Your task to perform on an android device: Is it going to rain today? Image 0: 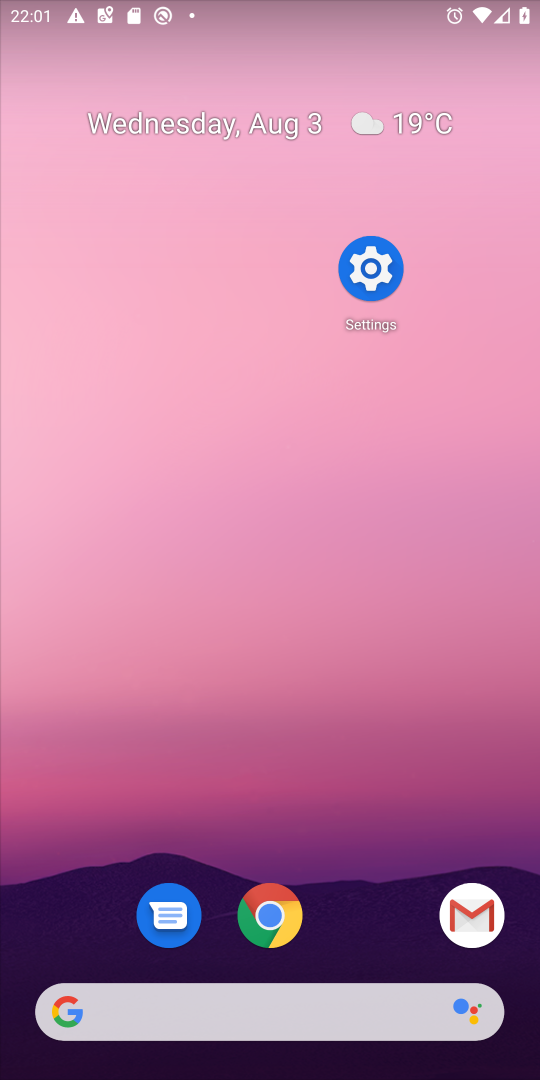
Step 0: press home button
Your task to perform on an android device: Is it going to rain today? Image 1: 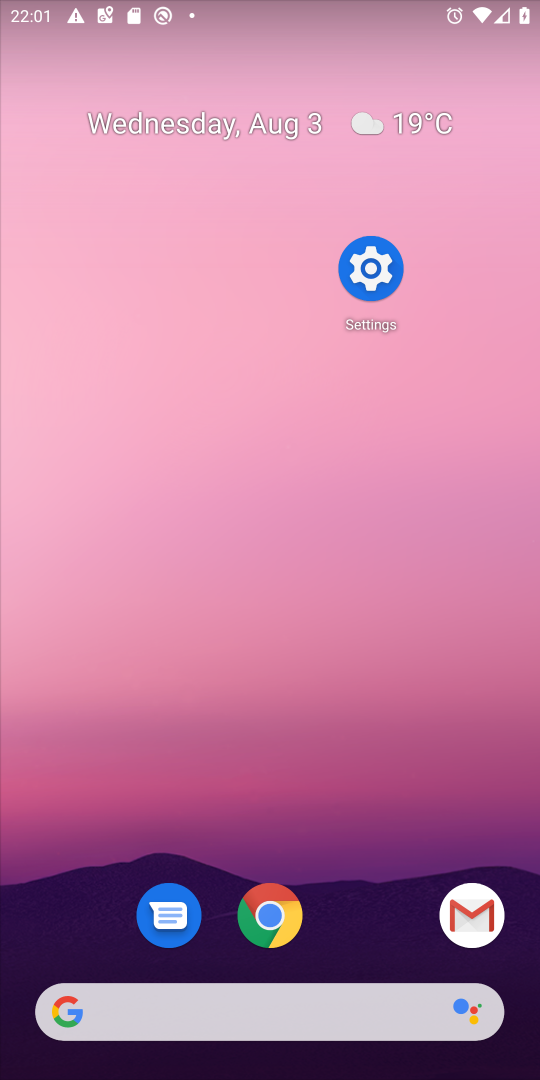
Step 1: drag from (348, 1073) to (323, 455)
Your task to perform on an android device: Is it going to rain today? Image 2: 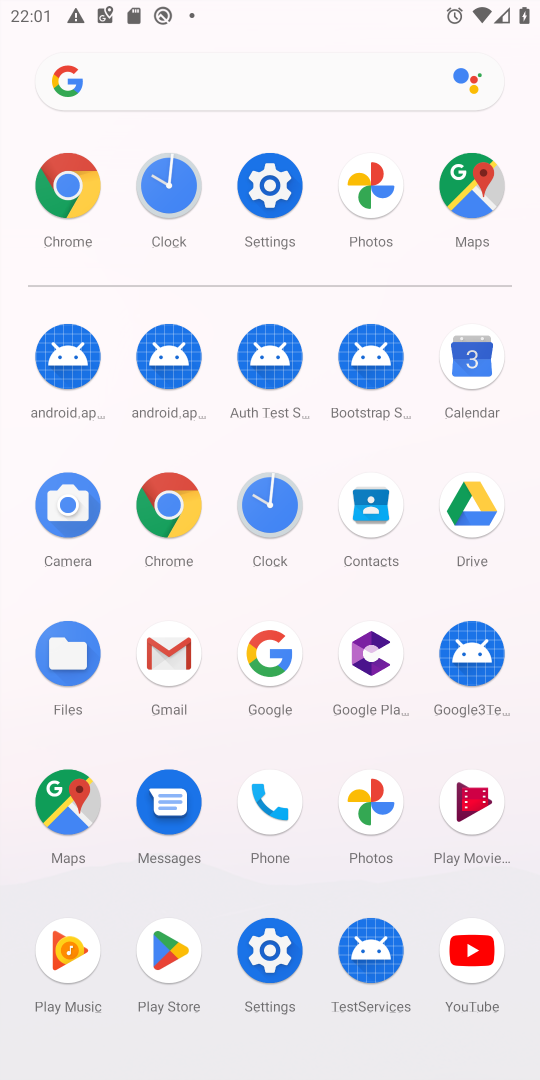
Step 2: click (175, 87)
Your task to perform on an android device: Is it going to rain today? Image 3: 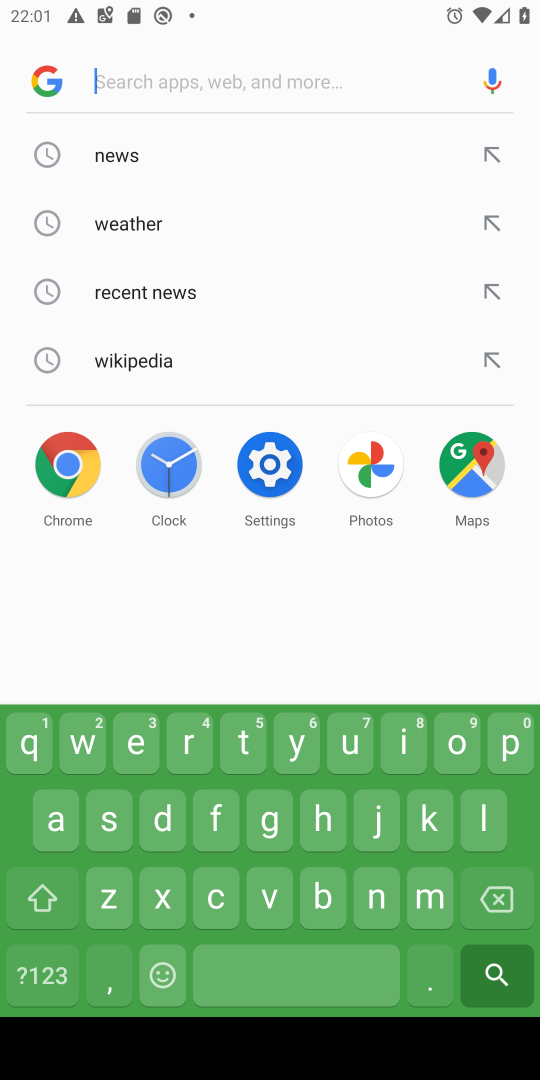
Step 3: click (405, 750)
Your task to perform on an android device: Is it going to rain today? Image 4: 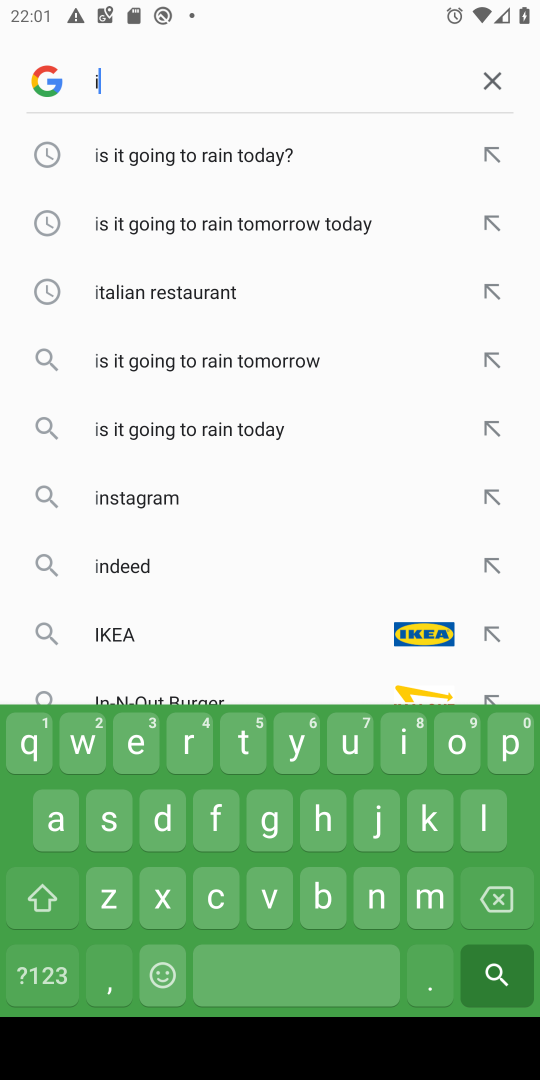
Step 4: click (137, 156)
Your task to perform on an android device: Is it going to rain today? Image 5: 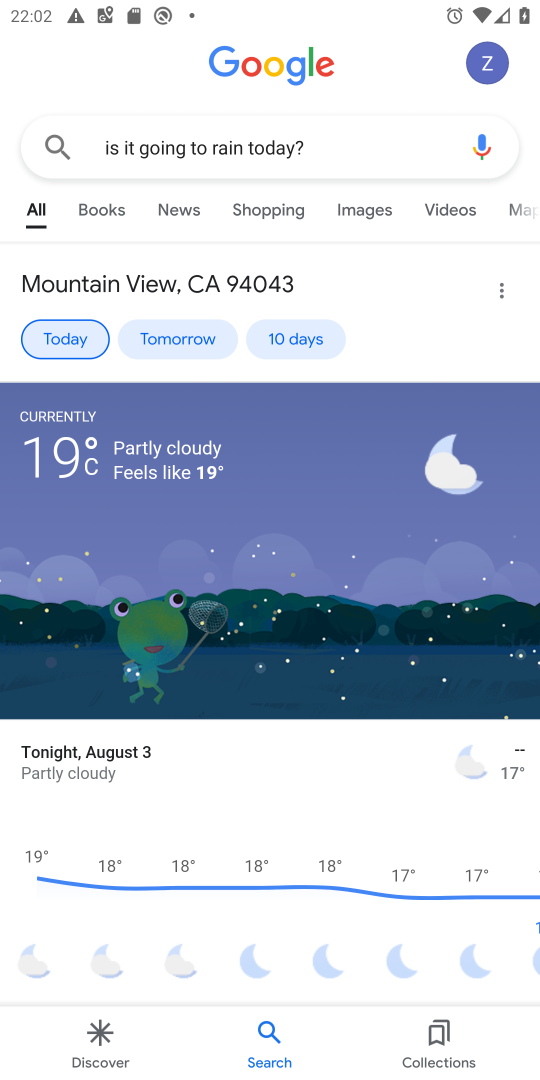
Step 5: task complete